Your task to perform on an android device: Go to internet settings Image 0: 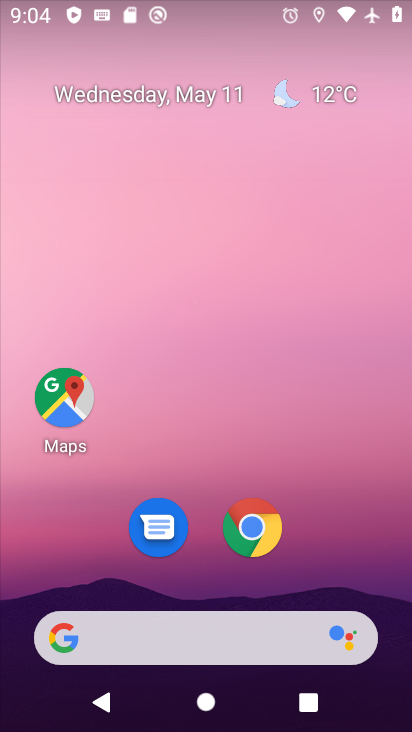
Step 0: drag from (380, 514) to (381, 180)
Your task to perform on an android device: Go to internet settings Image 1: 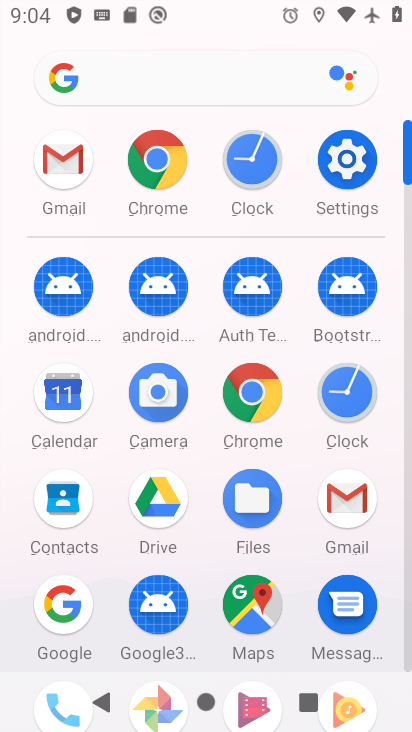
Step 1: click (354, 168)
Your task to perform on an android device: Go to internet settings Image 2: 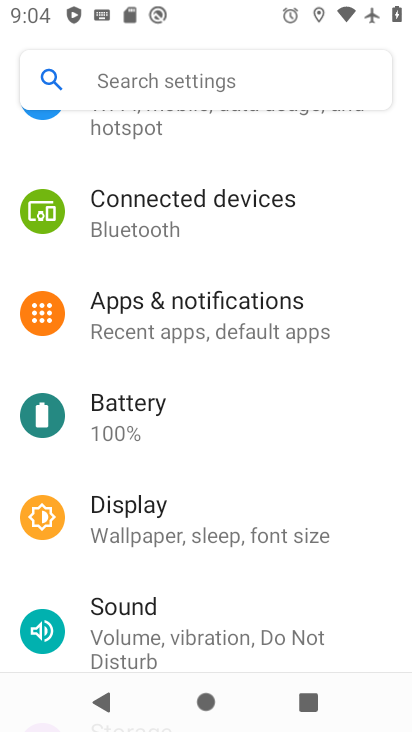
Step 2: drag from (316, 141) to (260, 580)
Your task to perform on an android device: Go to internet settings Image 3: 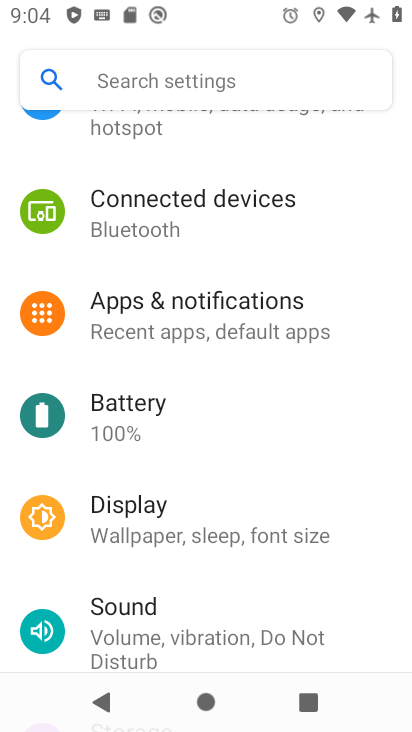
Step 3: drag from (245, 147) to (192, 547)
Your task to perform on an android device: Go to internet settings Image 4: 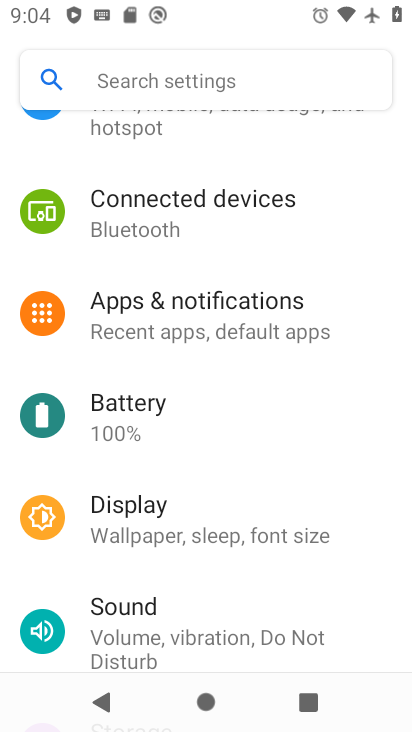
Step 4: drag from (288, 209) to (251, 655)
Your task to perform on an android device: Go to internet settings Image 5: 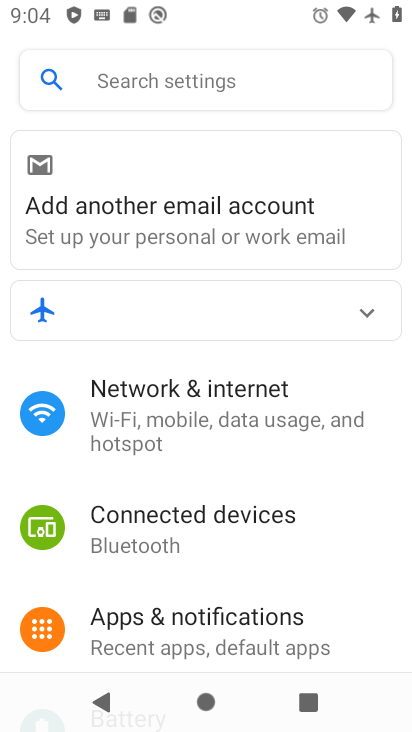
Step 5: click (185, 426)
Your task to perform on an android device: Go to internet settings Image 6: 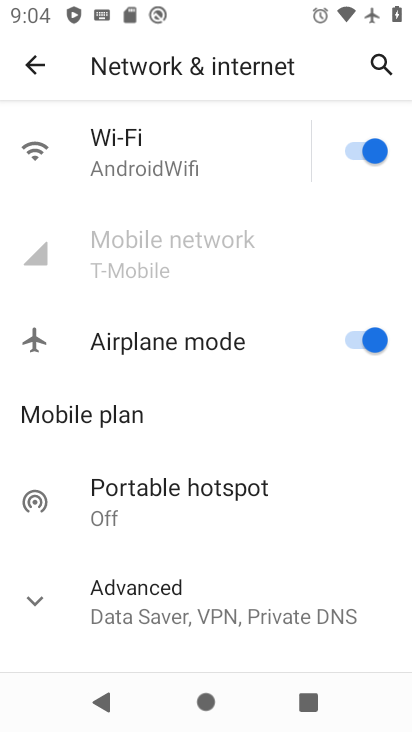
Step 6: task complete